Your task to perform on an android device: change your default location settings in chrome Image 0: 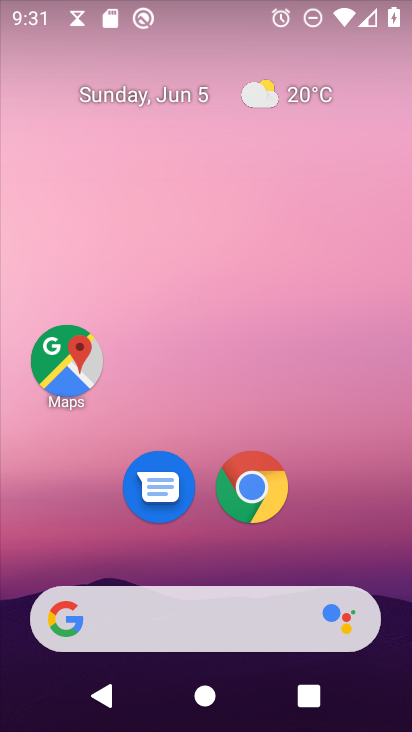
Step 0: click (258, 478)
Your task to perform on an android device: change your default location settings in chrome Image 1: 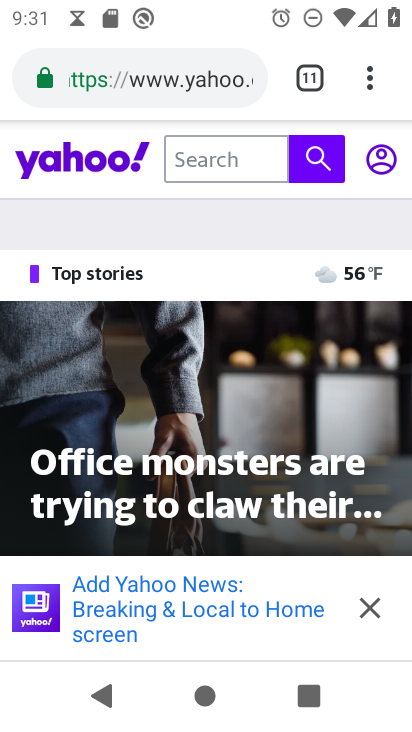
Step 1: click (366, 77)
Your task to perform on an android device: change your default location settings in chrome Image 2: 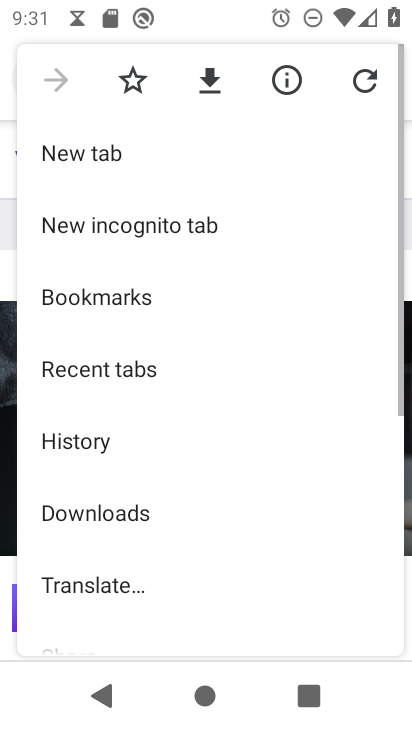
Step 2: drag from (151, 537) to (245, 134)
Your task to perform on an android device: change your default location settings in chrome Image 3: 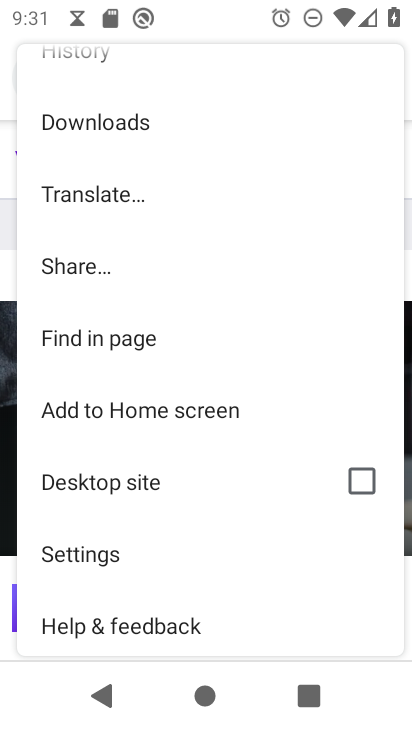
Step 3: click (125, 539)
Your task to perform on an android device: change your default location settings in chrome Image 4: 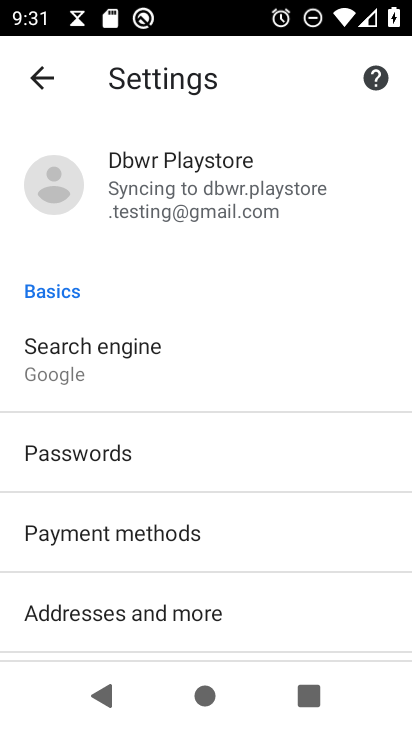
Step 4: drag from (179, 588) to (210, 270)
Your task to perform on an android device: change your default location settings in chrome Image 5: 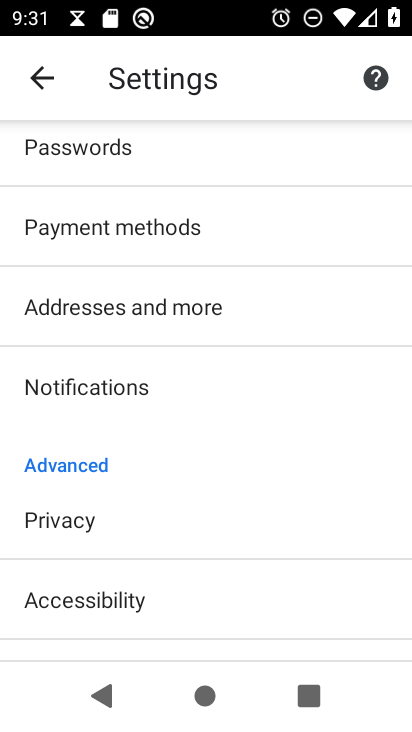
Step 5: drag from (168, 579) to (201, 347)
Your task to perform on an android device: change your default location settings in chrome Image 6: 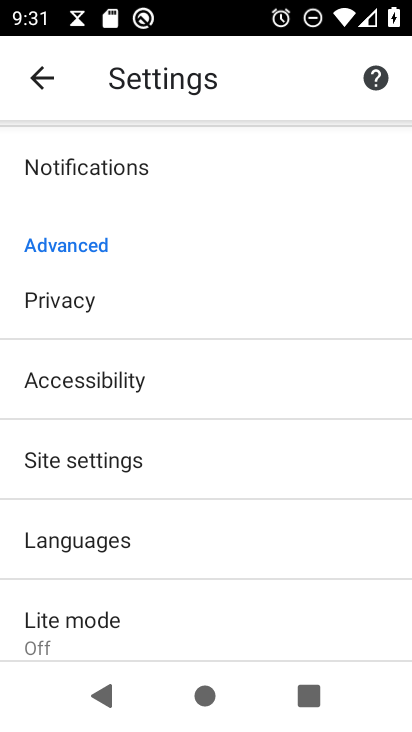
Step 6: click (132, 457)
Your task to perform on an android device: change your default location settings in chrome Image 7: 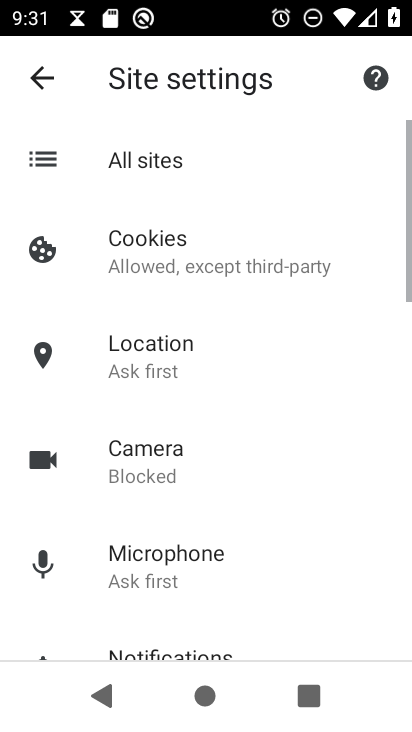
Step 7: click (149, 342)
Your task to perform on an android device: change your default location settings in chrome Image 8: 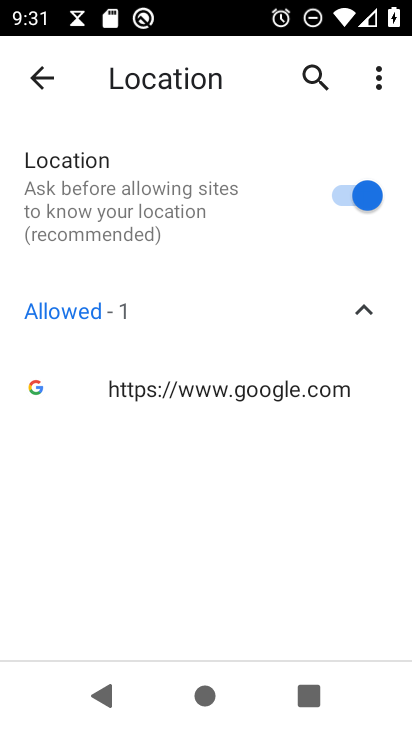
Step 8: click (356, 190)
Your task to perform on an android device: change your default location settings in chrome Image 9: 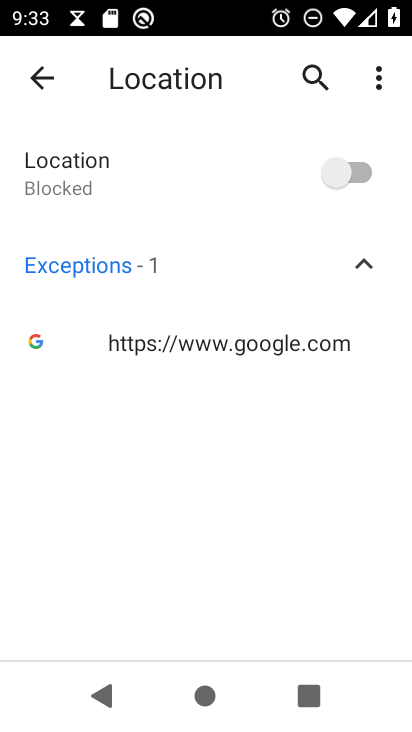
Step 9: task complete